Your task to perform on an android device: uninstall "Microsoft Authenticator" Image 0: 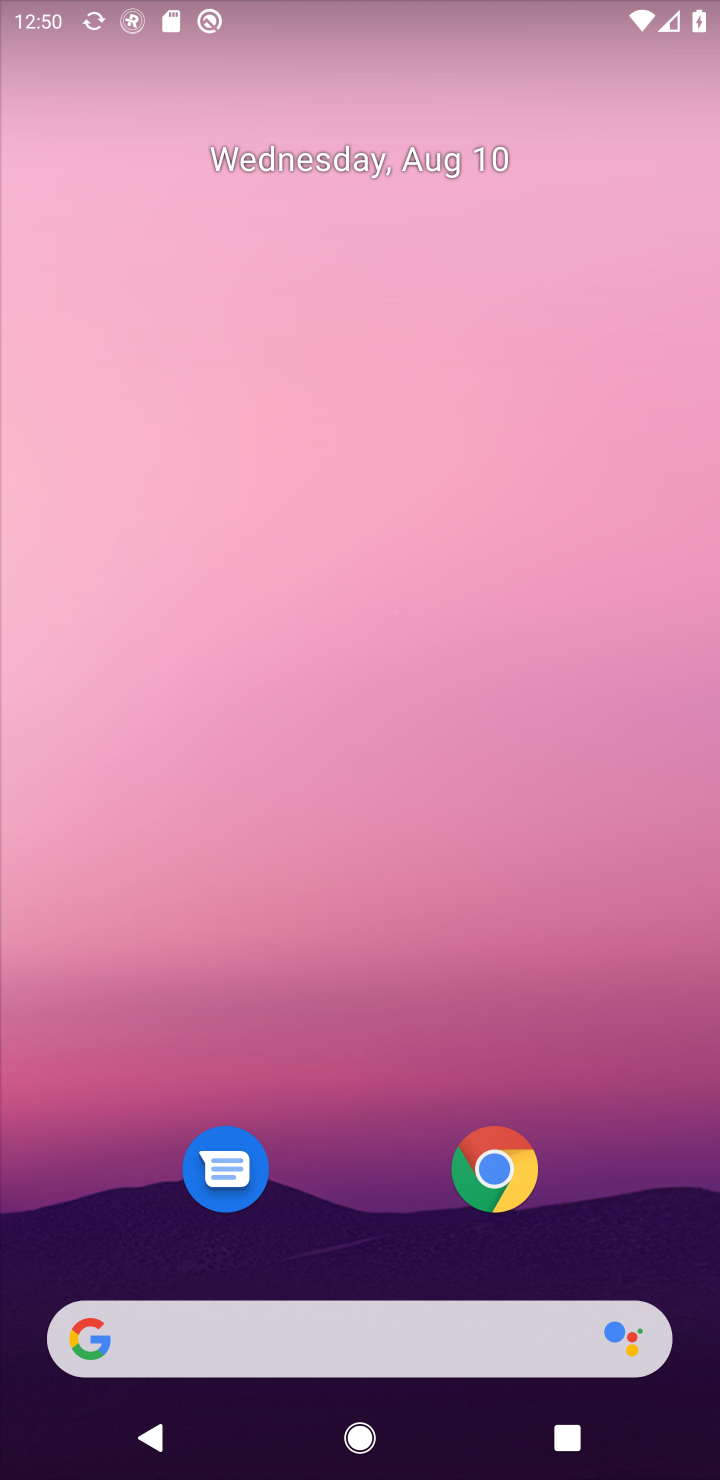
Step 0: press home button
Your task to perform on an android device: uninstall "Microsoft Authenticator" Image 1: 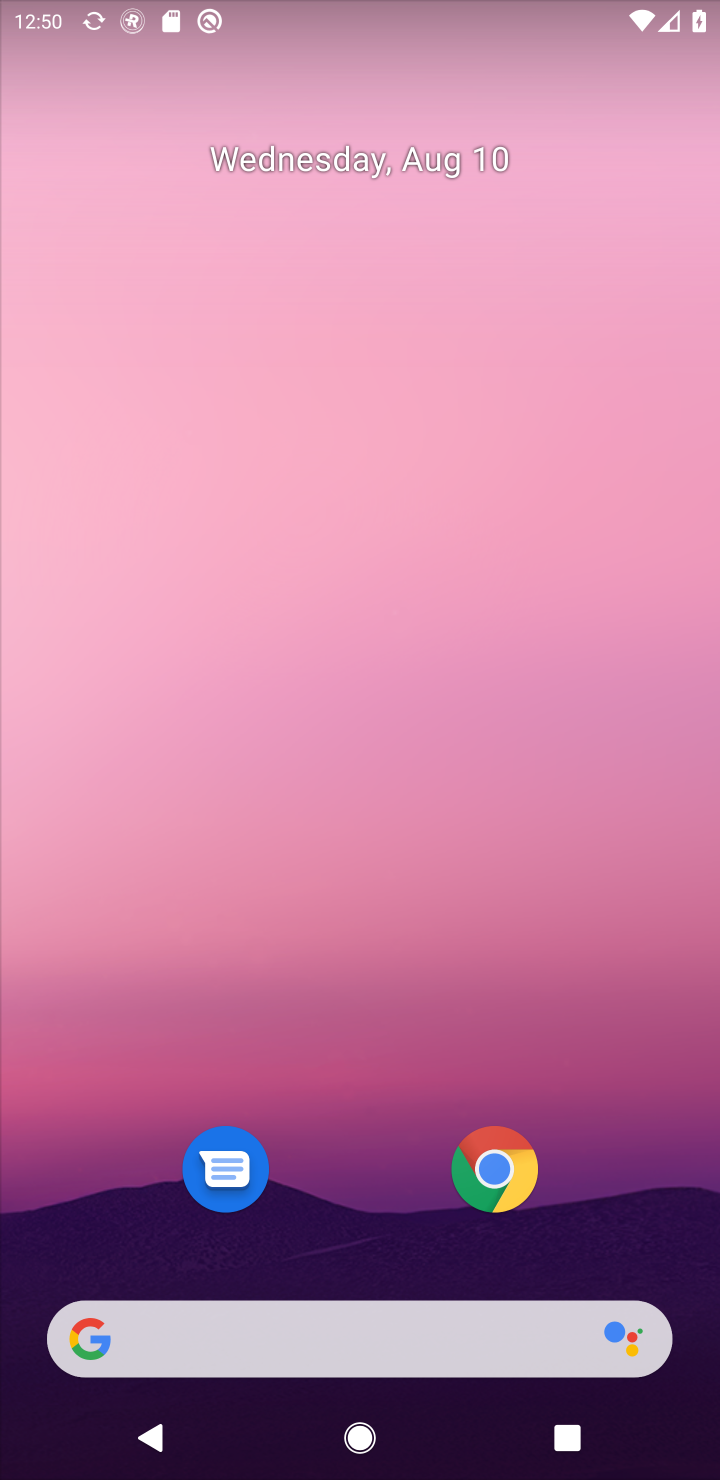
Step 1: drag from (626, 1232) to (600, 113)
Your task to perform on an android device: uninstall "Microsoft Authenticator" Image 2: 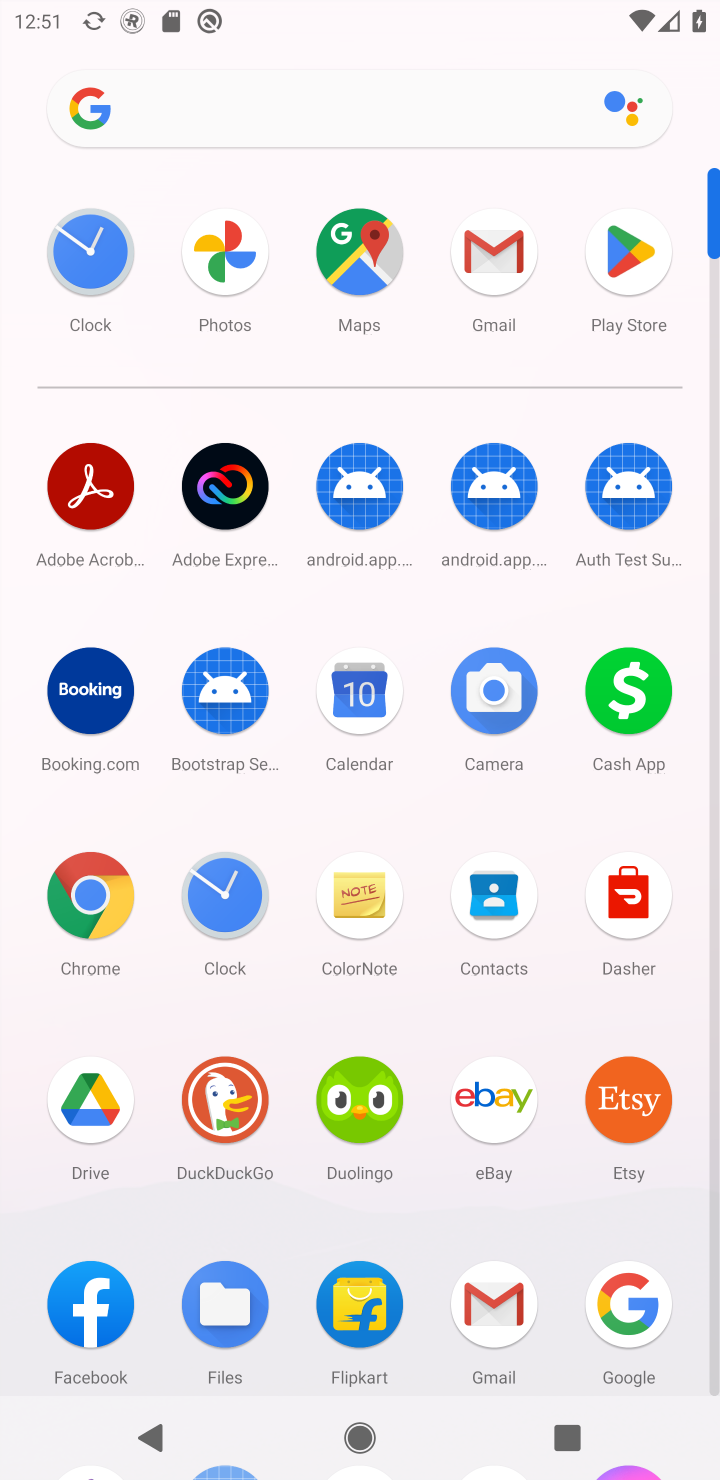
Step 2: click (618, 258)
Your task to perform on an android device: uninstall "Microsoft Authenticator" Image 3: 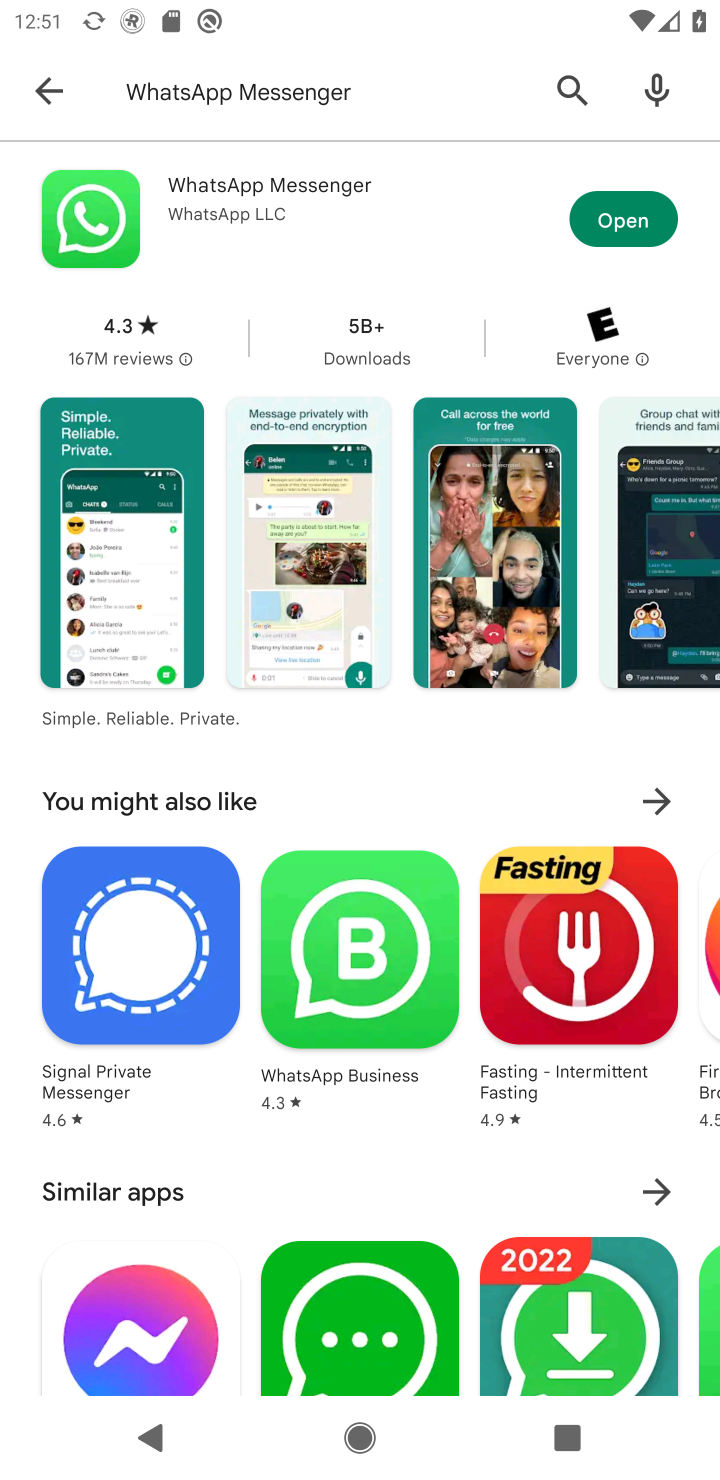
Step 3: click (566, 87)
Your task to perform on an android device: uninstall "Microsoft Authenticator" Image 4: 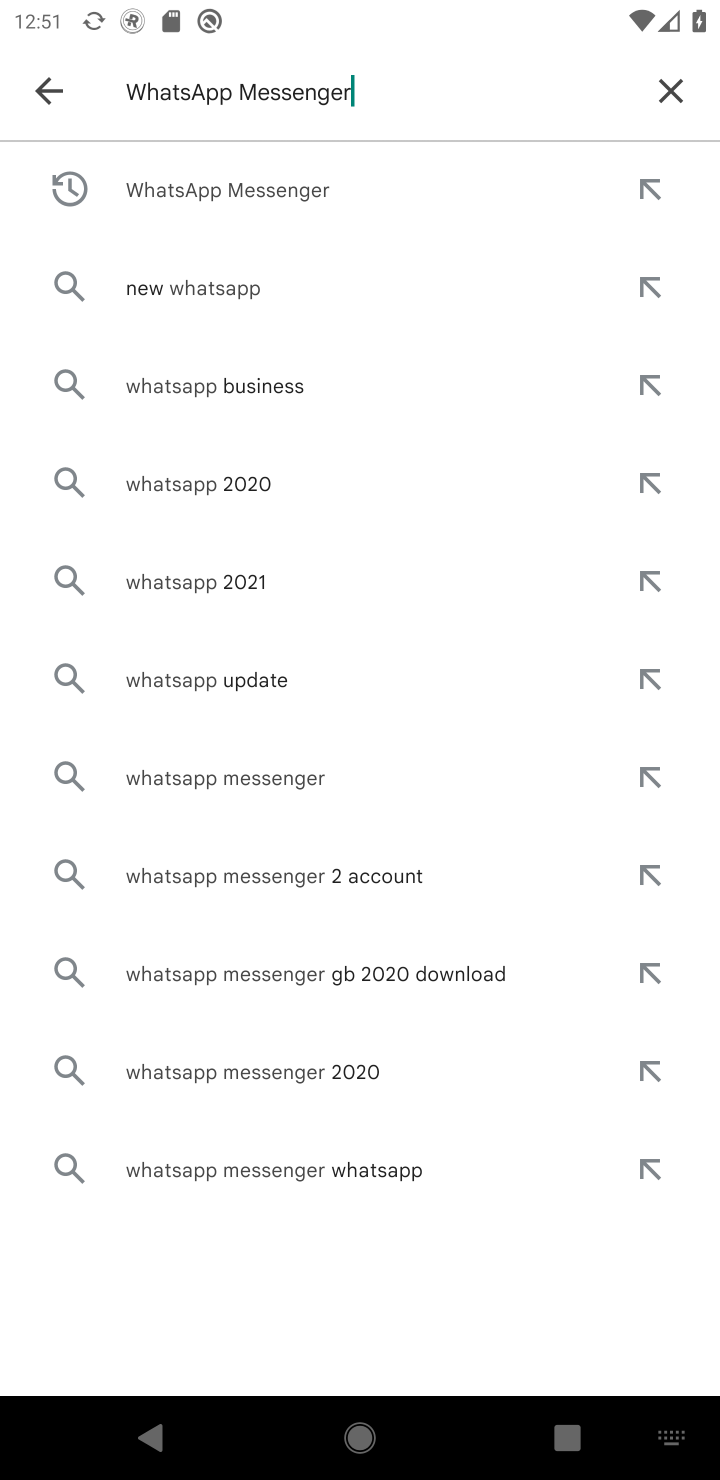
Step 4: click (689, 95)
Your task to perform on an android device: uninstall "Microsoft Authenticator" Image 5: 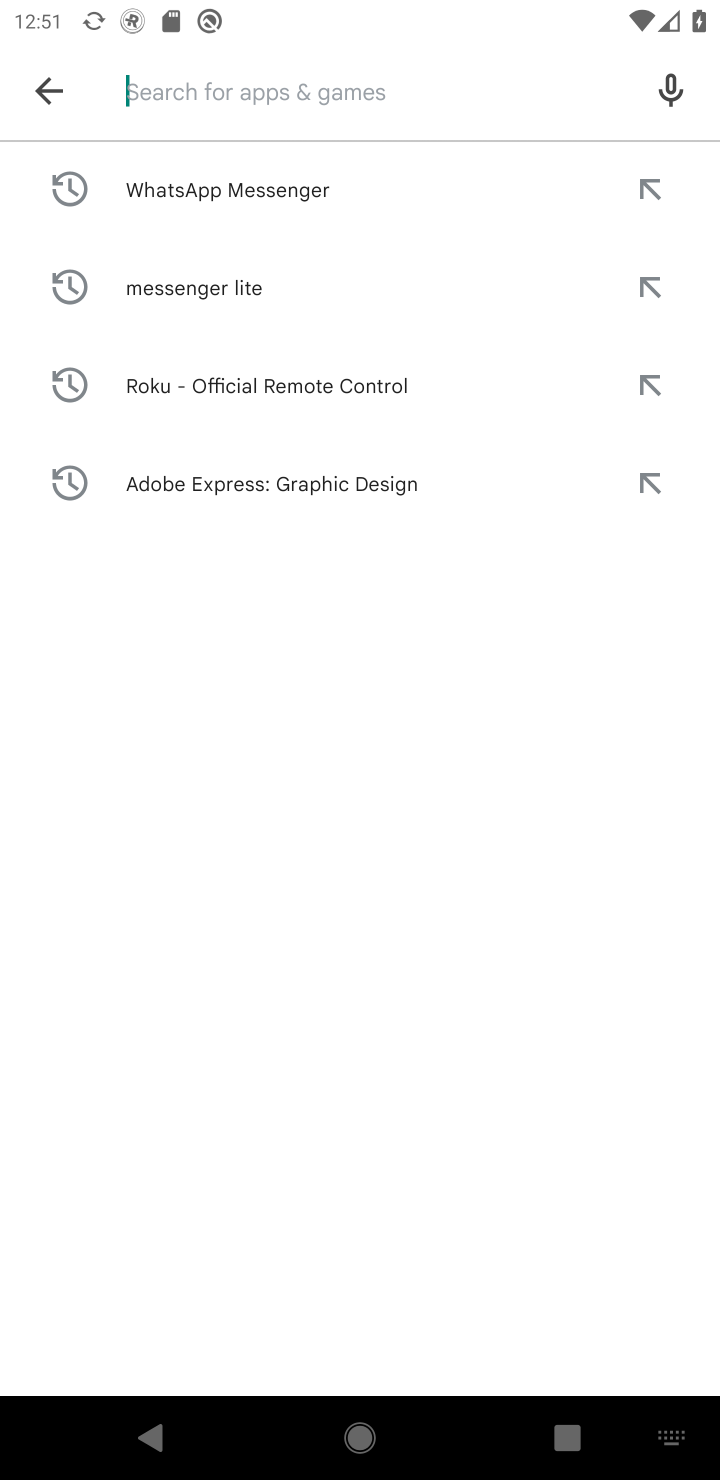
Step 5: type "microsoft authenticator"
Your task to perform on an android device: uninstall "Microsoft Authenticator" Image 6: 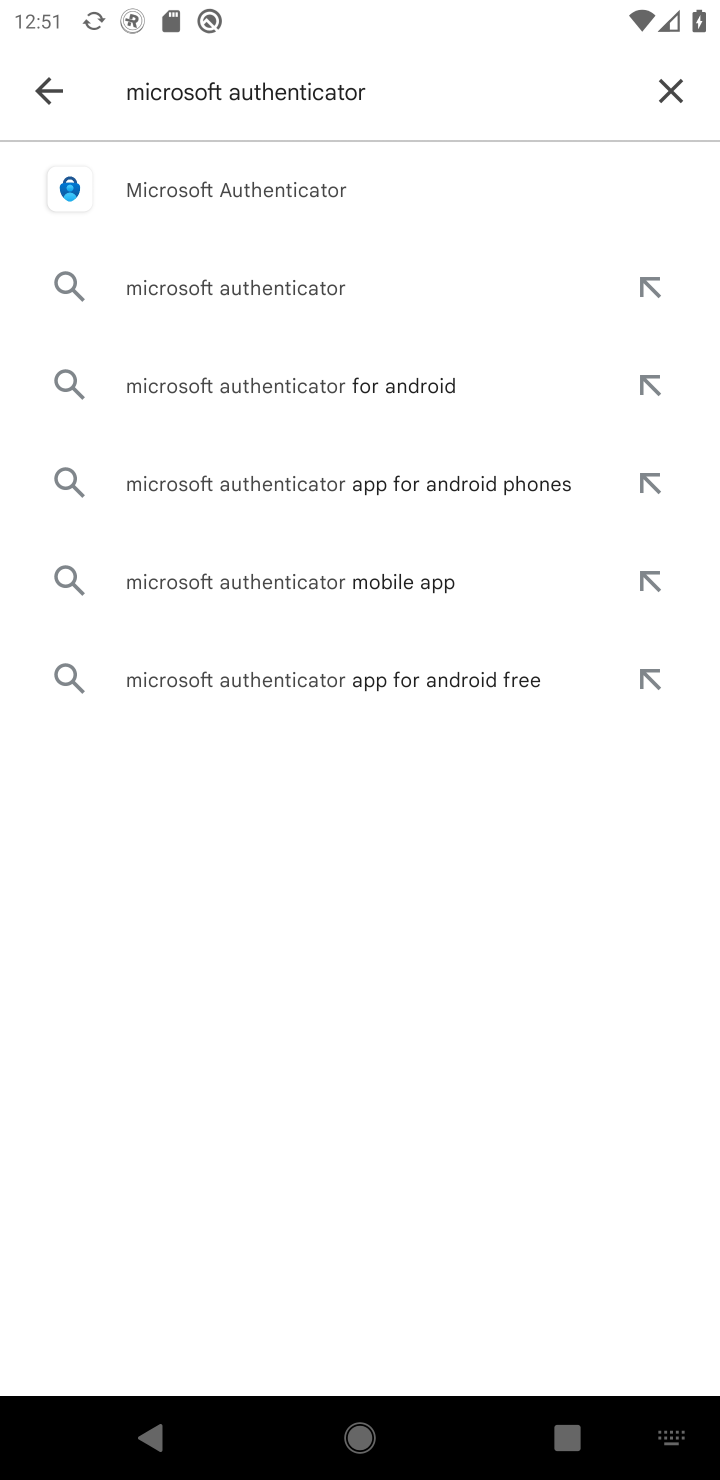
Step 6: click (290, 186)
Your task to perform on an android device: uninstall "Microsoft Authenticator" Image 7: 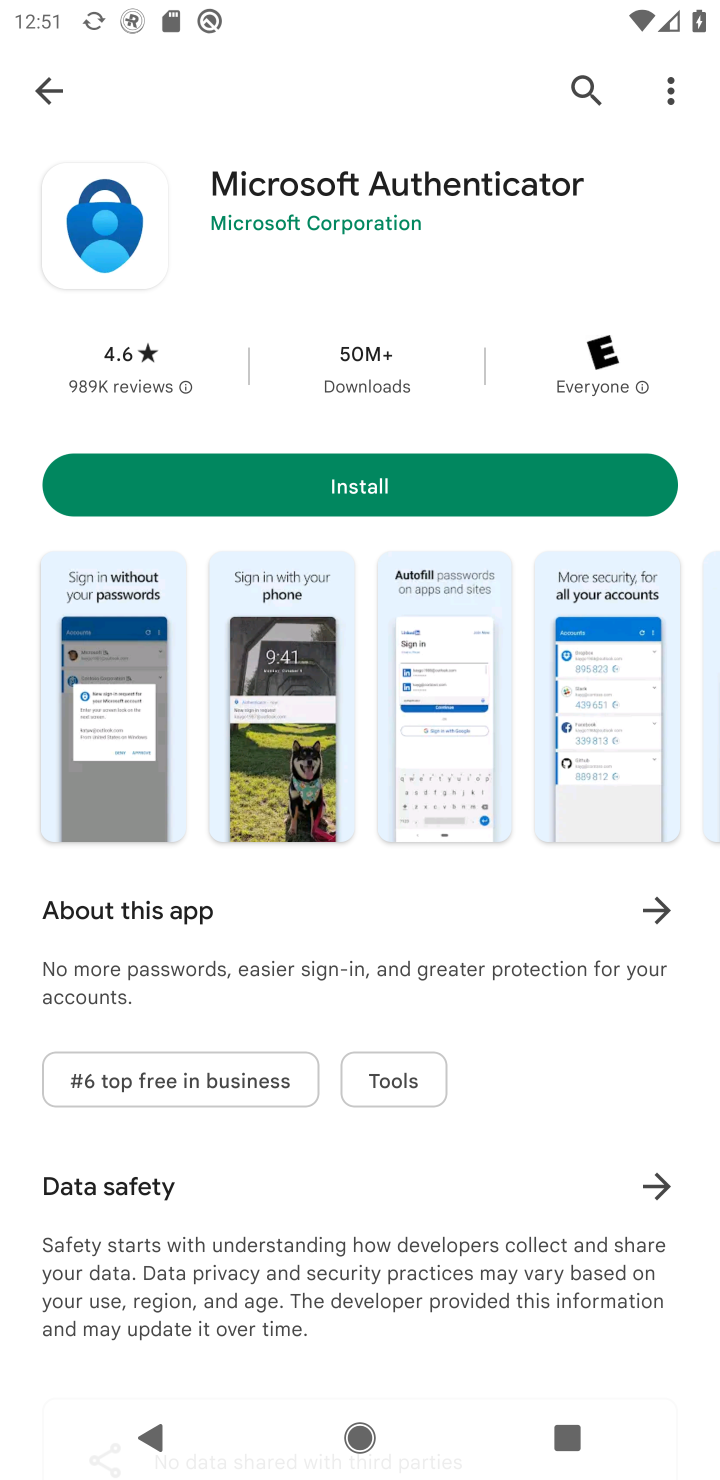
Step 7: task complete